Your task to perform on an android device: turn vacation reply on in the gmail app Image 0: 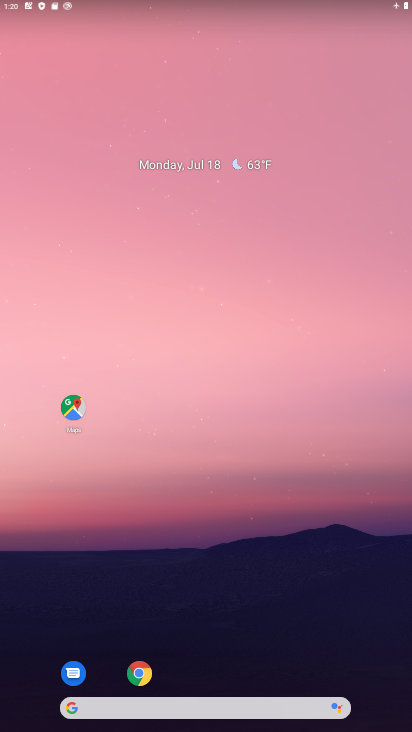
Step 0: drag from (237, 638) to (221, 487)
Your task to perform on an android device: turn vacation reply on in the gmail app Image 1: 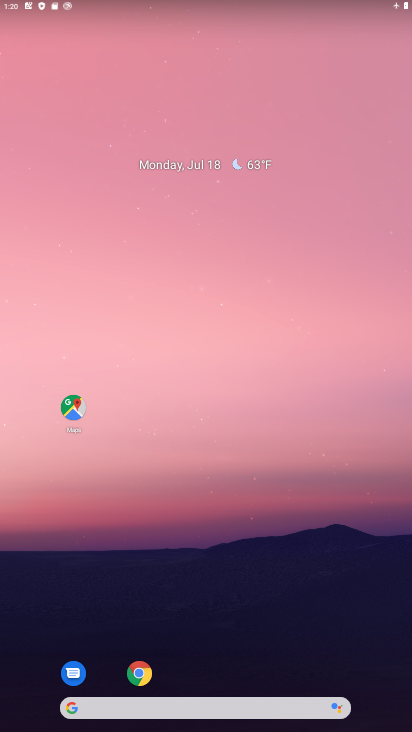
Step 1: drag from (235, 534) to (235, 331)
Your task to perform on an android device: turn vacation reply on in the gmail app Image 2: 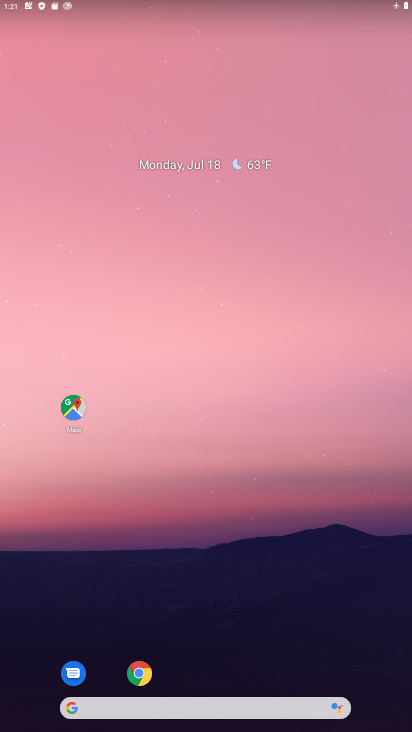
Step 2: drag from (246, 659) to (242, 616)
Your task to perform on an android device: turn vacation reply on in the gmail app Image 3: 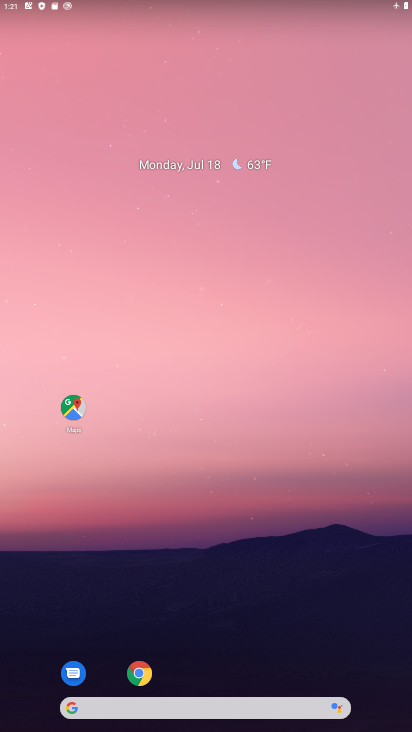
Step 3: drag from (218, 656) to (230, 464)
Your task to perform on an android device: turn vacation reply on in the gmail app Image 4: 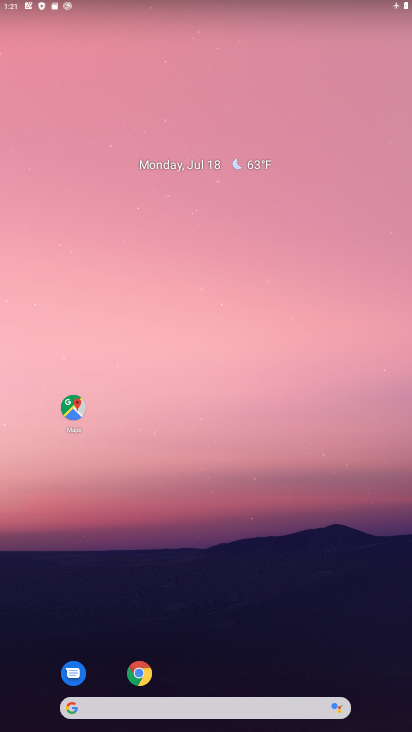
Step 4: drag from (188, 655) to (156, 122)
Your task to perform on an android device: turn vacation reply on in the gmail app Image 5: 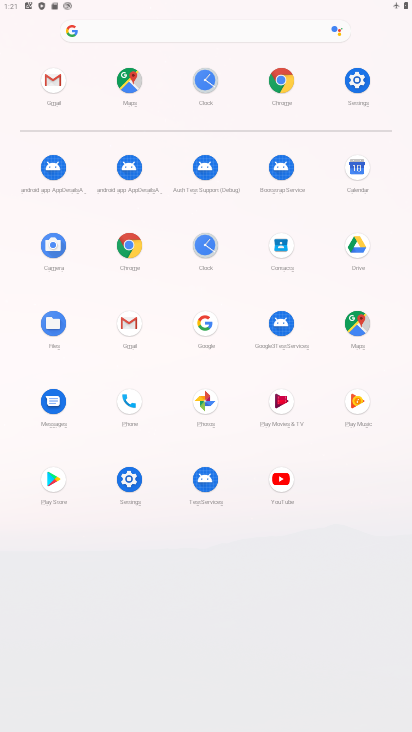
Step 5: click (138, 314)
Your task to perform on an android device: turn vacation reply on in the gmail app Image 6: 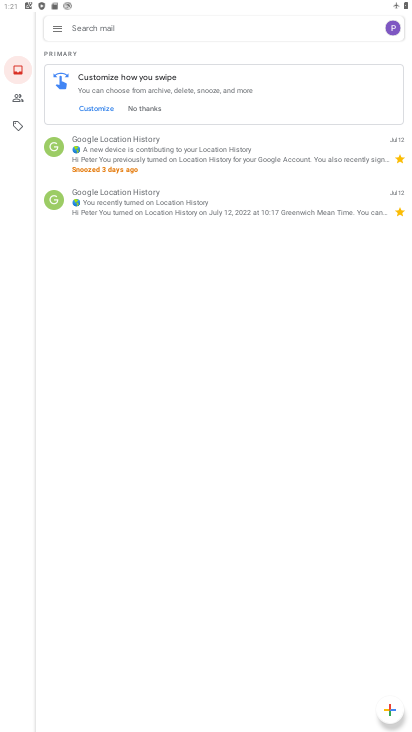
Step 6: click (62, 24)
Your task to perform on an android device: turn vacation reply on in the gmail app Image 7: 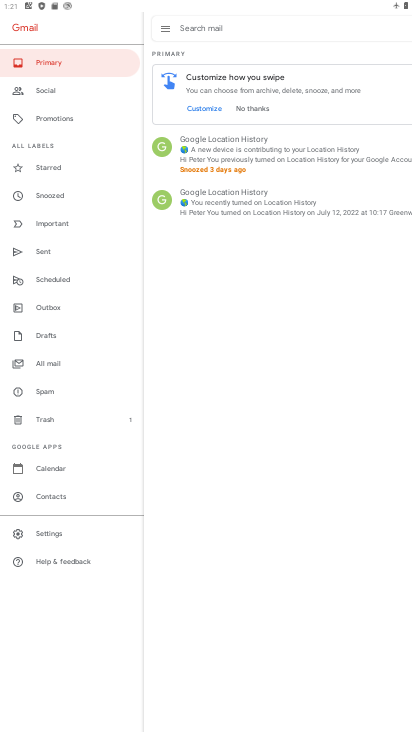
Step 7: click (50, 529)
Your task to perform on an android device: turn vacation reply on in the gmail app Image 8: 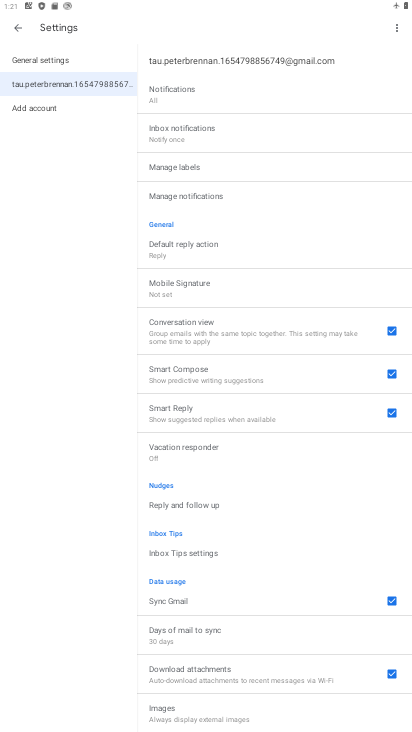
Step 8: click (195, 454)
Your task to perform on an android device: turn vacation reply on in the gmail app Image 9: 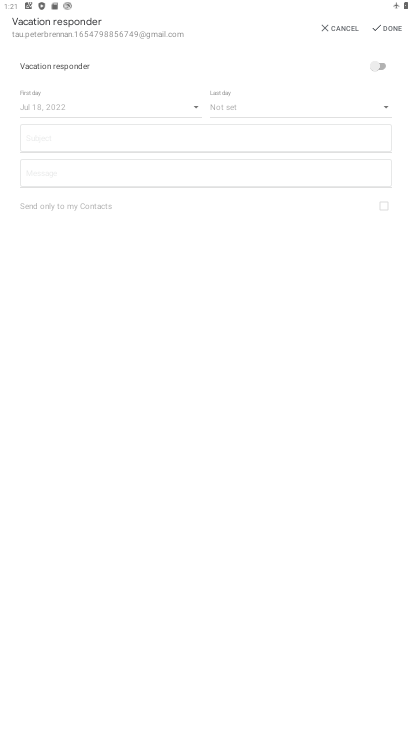
Step 9: click (376, 67)
Your task to perform on an android device: turn vacation reply on in the gmail app Image 10: 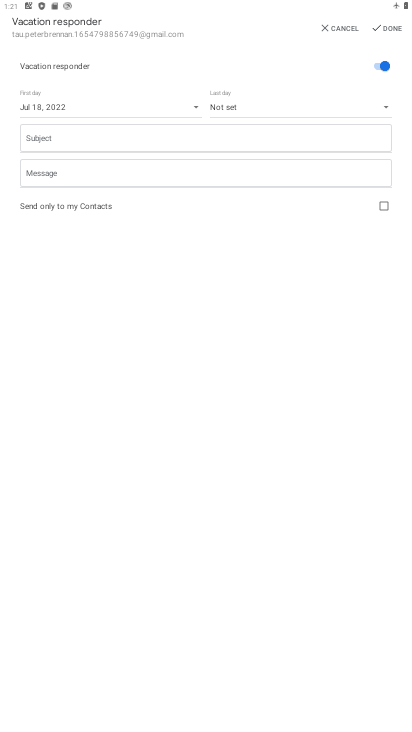
Step 10: click (395, 8)
Your task to perform on an android device: turn vacation reply on in the gmail app Image 11: 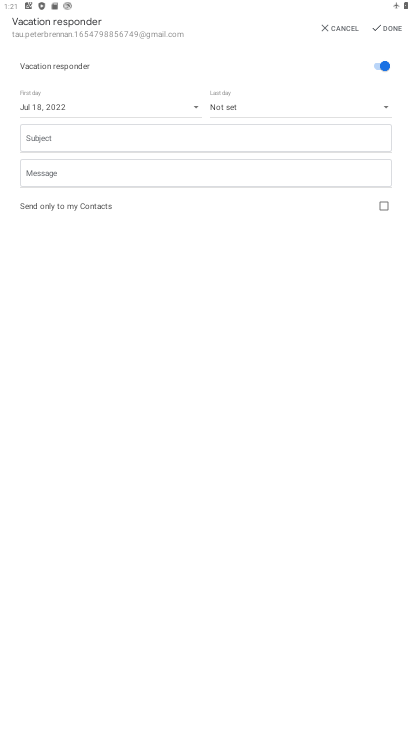
Step 11: click (395, 22)
Your task to perform on an android device: turn vacation reply on in the gmail app Image 12: 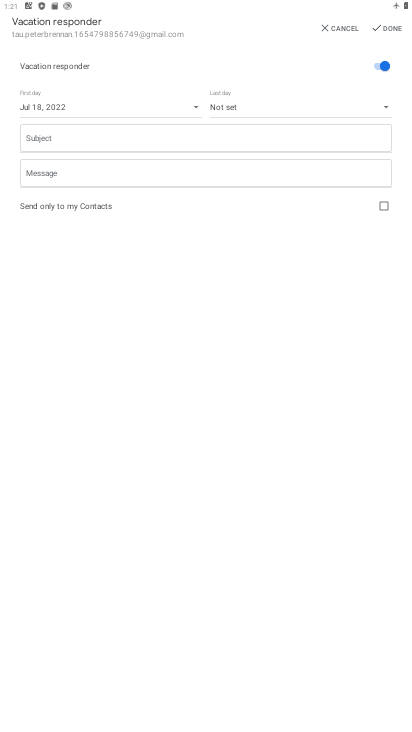
Step 12: task complete